Your task to perform on an android device: check data usage Image 0: 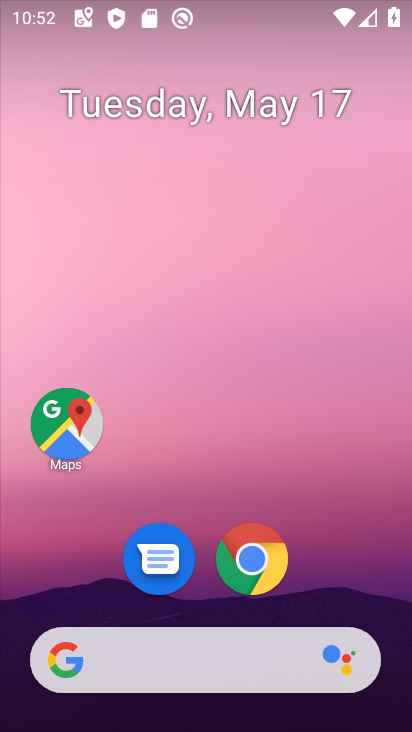
Step 0: drag from (241, 708) to (210, 44)
Your task to perform on an android device: check data usage Image 1: 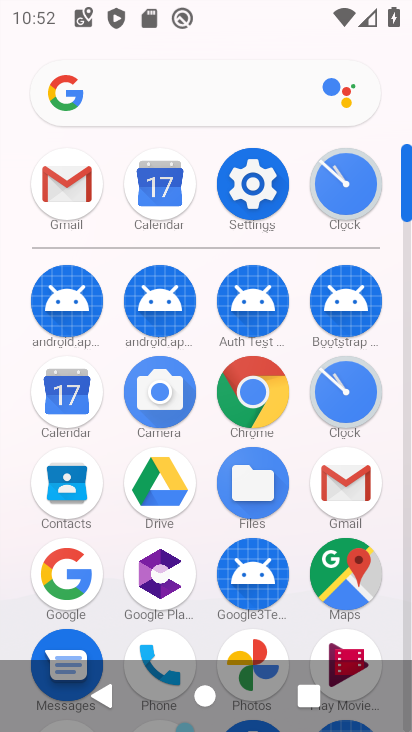
Step 1: click (251, 189)
Your task to perform on an android device: check data usage Image 2: 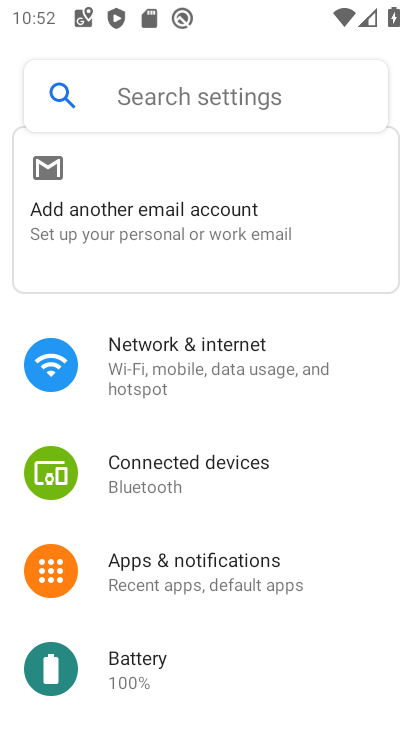
Step 2: drag from (265, 553) to (322, 127)
Your task to perform on an android device: check data usage Image 3: 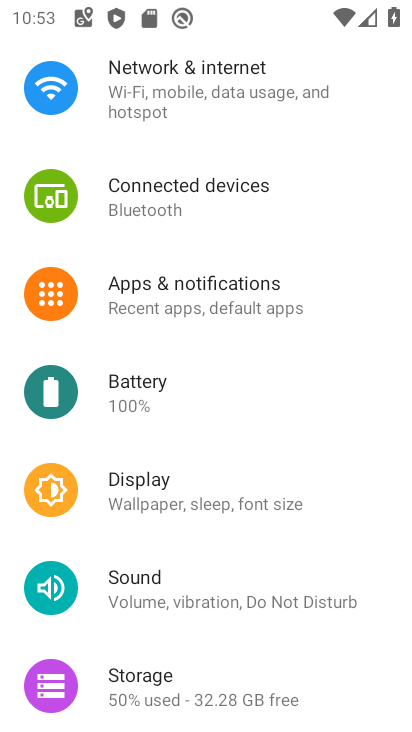
Step 3: click (315, 96)
Your task to perform on an android device: check data usage Image 4: 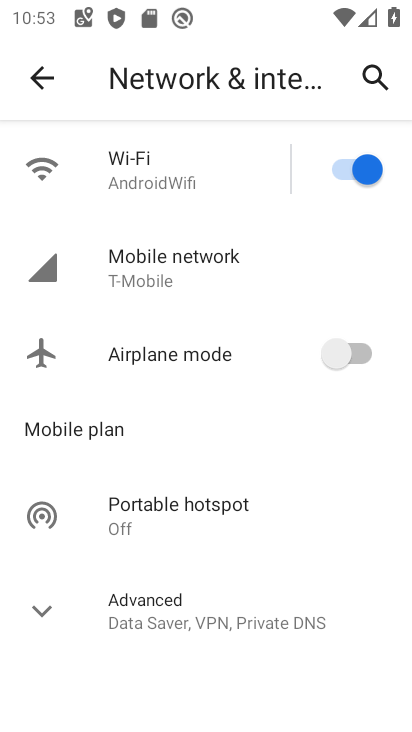
Step 4: click (227, 252)
Your task to perform on an android device: check data usage Image 5: 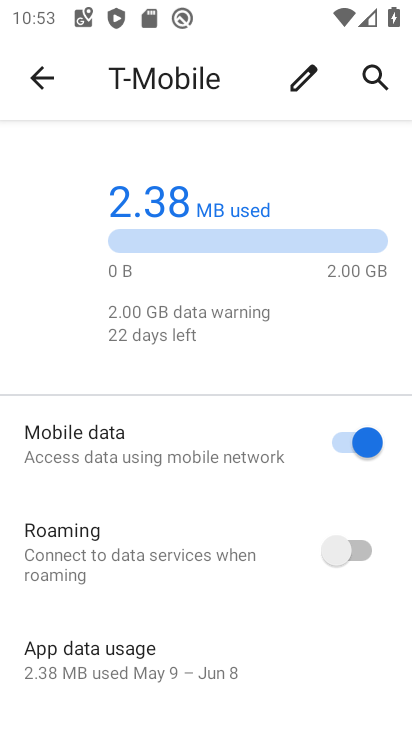
Step 5: task complete